Your task to perform on an android device: turn on sleep mode Image 0: 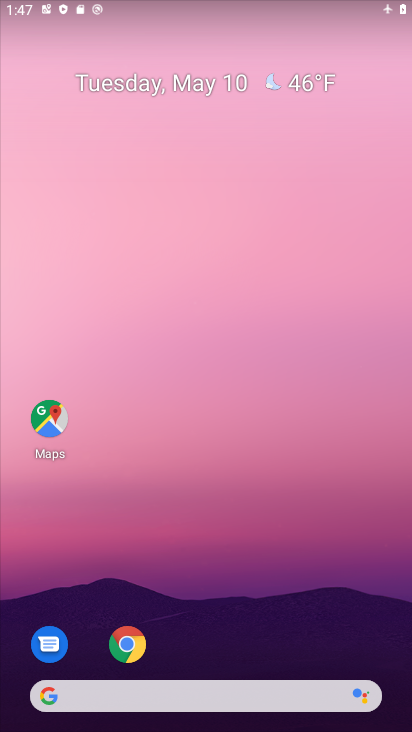
Step 0: drag from (212, 594) to (183, 178)
Your task to perform on an android device: turn on sleep mode Image 1: 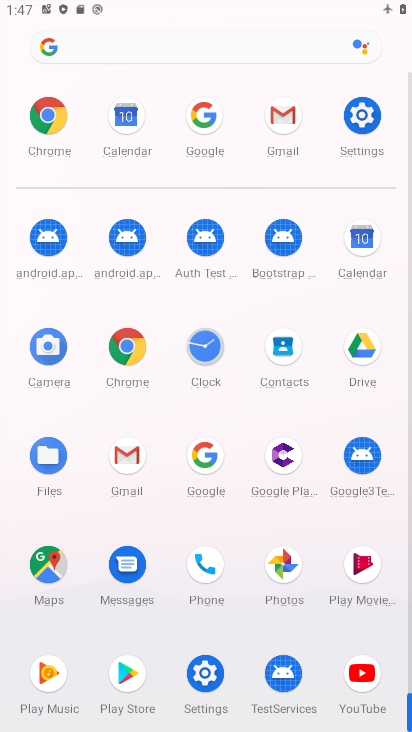
Step 1: click (369, 119)
Your task to perform on an android device: turn on sleep mode Image 2: 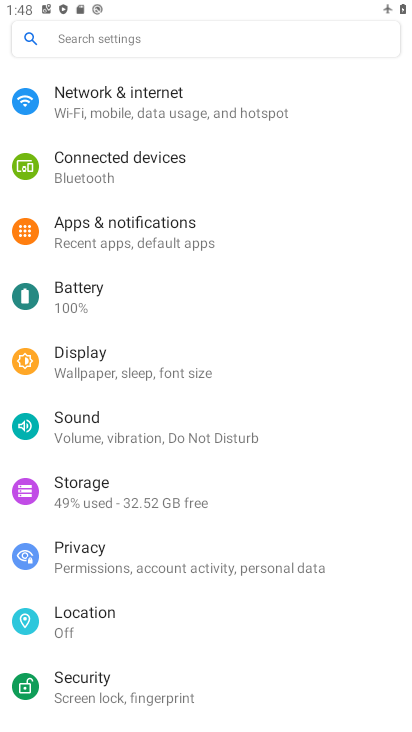
Step 2: task complete